Your task to perform on an android device: Do I have any events tomorrow? Image 0: 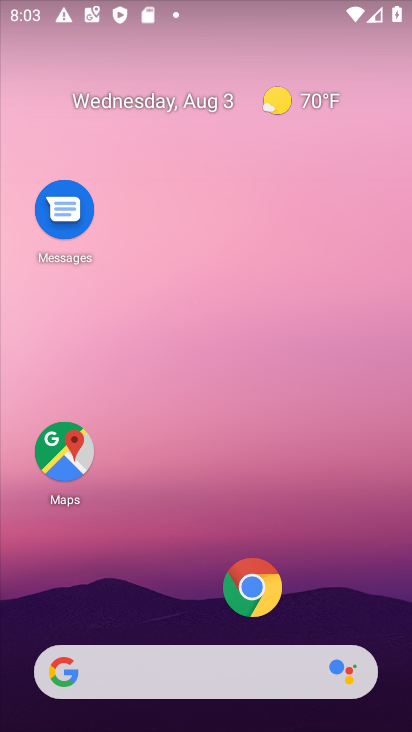
Step 0: drag from (162, 613) to (153, 114)
Your task to perform on an android device: Do I have any events tomorrow? Image 1: 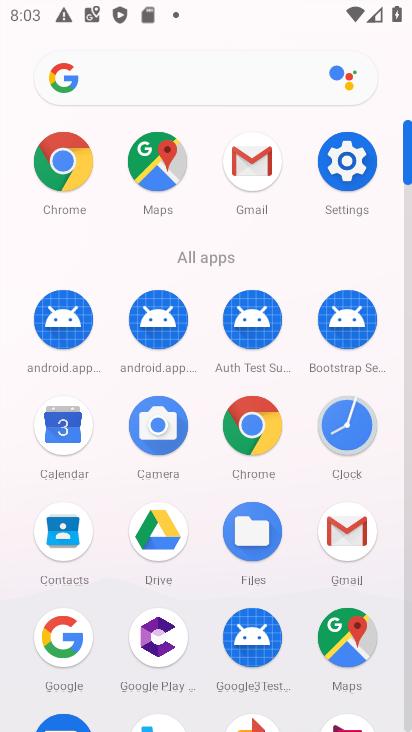
Step 1: click (53, 431)
Your task to perform on an android device: Do I have any events tomorrow? Image 2: 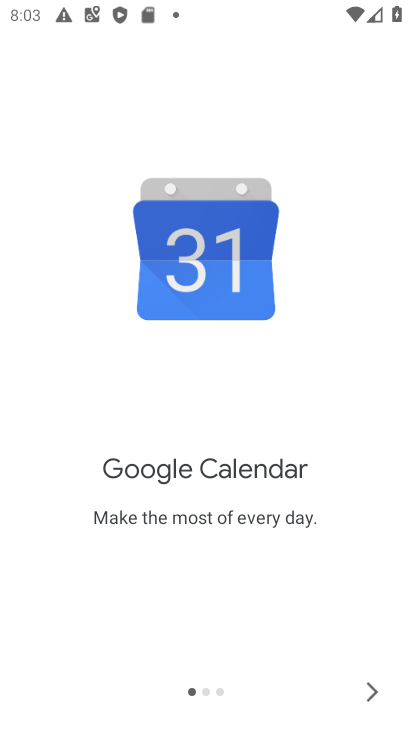
Step 2: click (363, 703)
Your task to perform on an android device: Do I have any events tomorrow? Image 3: 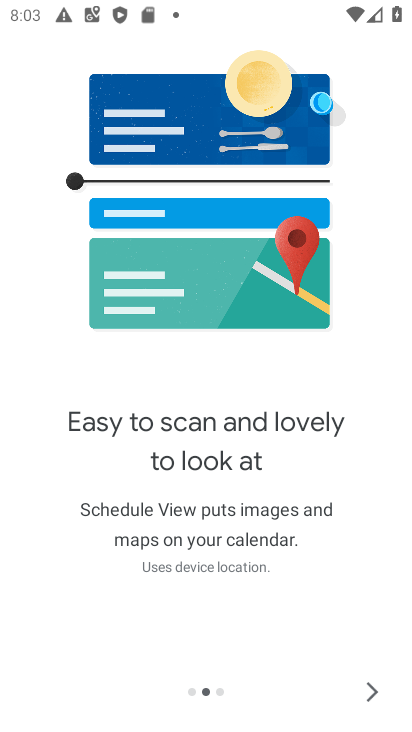
Step 3: click (363, 703)
Your task to perform on an android device: Do I have any events tomorrow? Image 4: 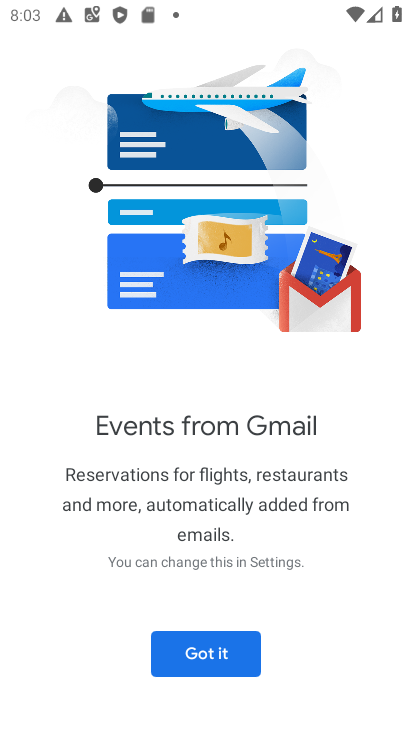
Step 4: click (241, 665)
Your task to perform on an android device: Do I have any events tomorrow? Image 5: 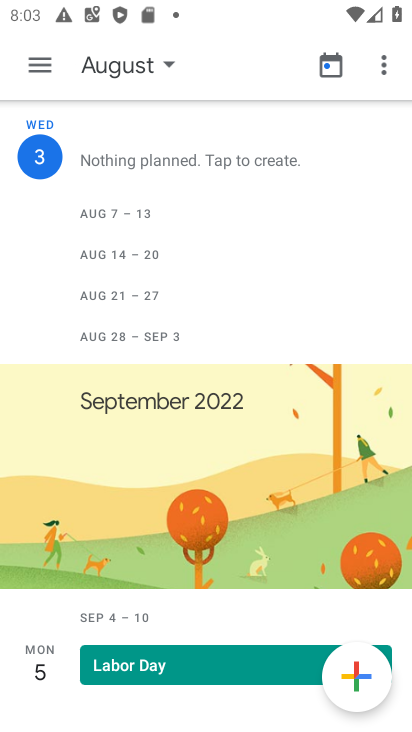
Step 5: click (131, 71)
Your task to perform on an android device: Do I have any events tomorrow? Image 6: 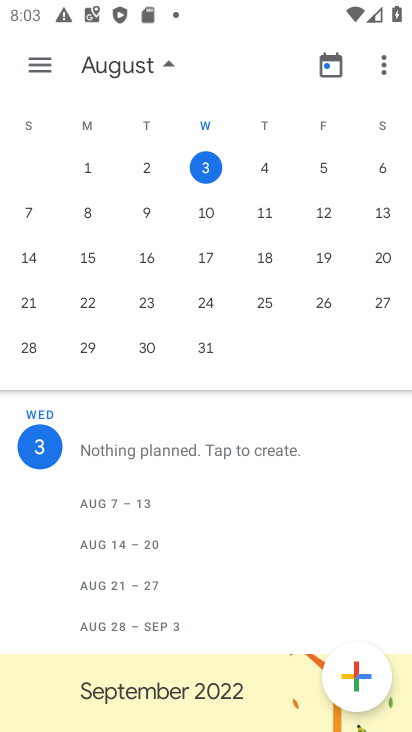
Step 6: click (253, 164)
Your task to perform on an android device: Do I have any events tomorrow? Image 7: 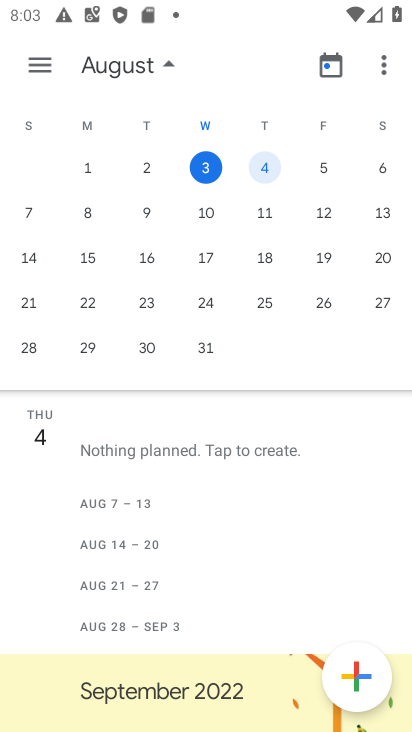
Step 7: task complete